Your task to perform on an android device: Clear the shopping cart on ebay. Add razer naga to the cart on ebay, then select checkout. Image 0: 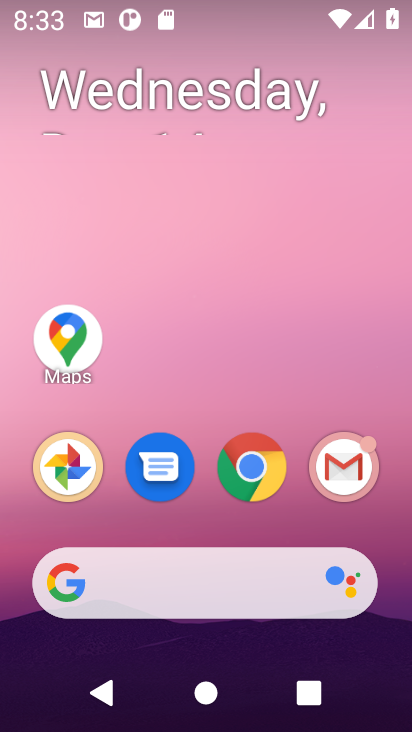
Step 0: click (237, 498)
Your task to perform on an android device: Clear the shopping cart on ebay. Add razer naga to the cart on ebay, then select checkout. Image 1: 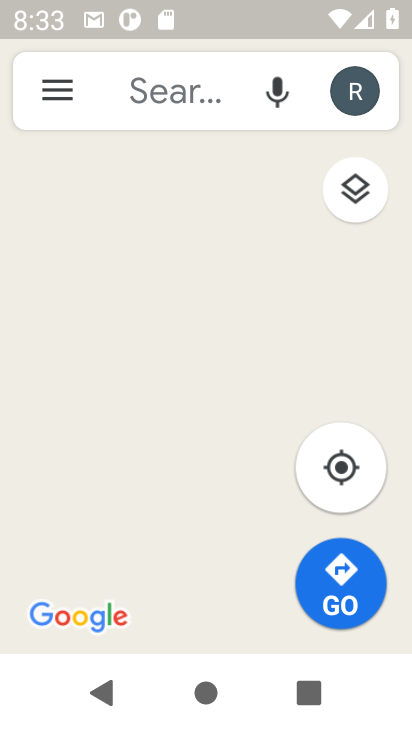
Step 1: press home button
Your task to perform on an android device: Clear the shopping cart on ebay. Add razer naga to the cart on ebay, then select checkout. Image 2: 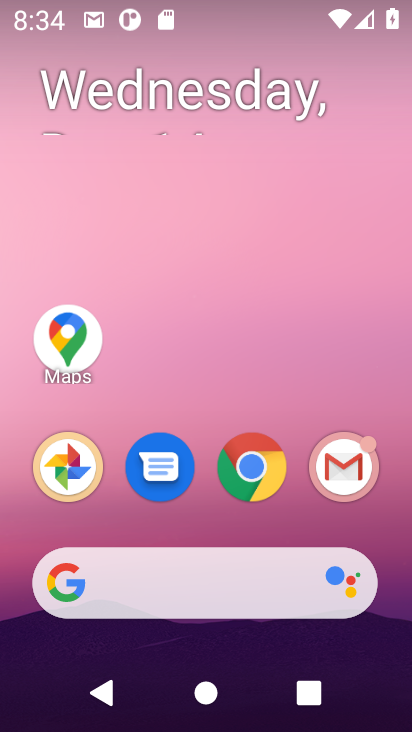
Step 2: click (256, 488)
Your task to perform on an android device: Clear the shopping cart on ebay. Add razer naga to the cart on ebay, then select checkout. Image 3: 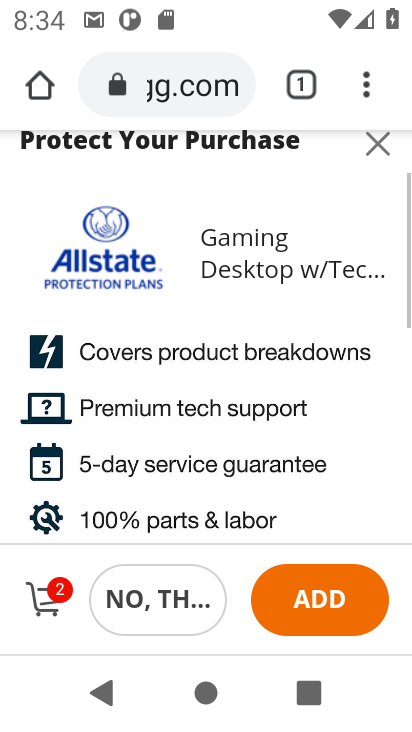
Step 3: click (278, 570)
Your task to perform on an android device: Clear the shopping cart on ebay. Add razer naga to the cart on ebay, then select checkout. Image 4: 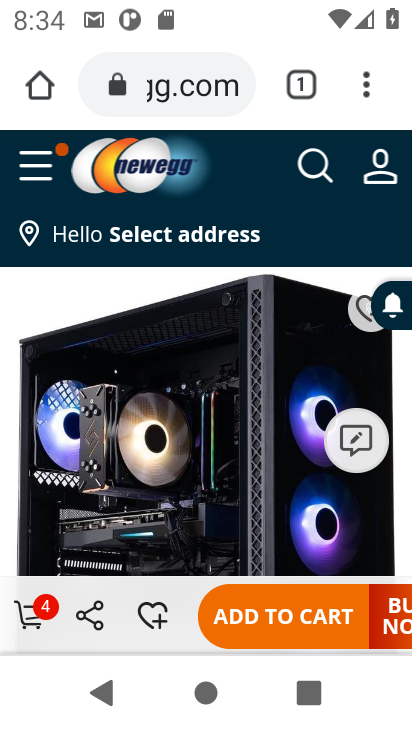
Step 4: click (175, 77)
Your task to perform on an android device: Clear the shopping cart on ebay. Add razer naga to the cart on ebay, then select checkout. Image 5: 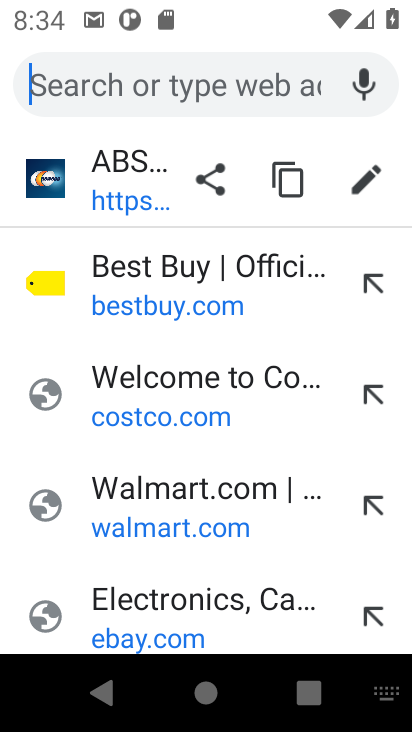
Step 5: type "ebay"
Your task to perform on an android device: Clear the shopping cart on ebay. Add razer naga to the cart on ebay, then select checkout. Image 6: 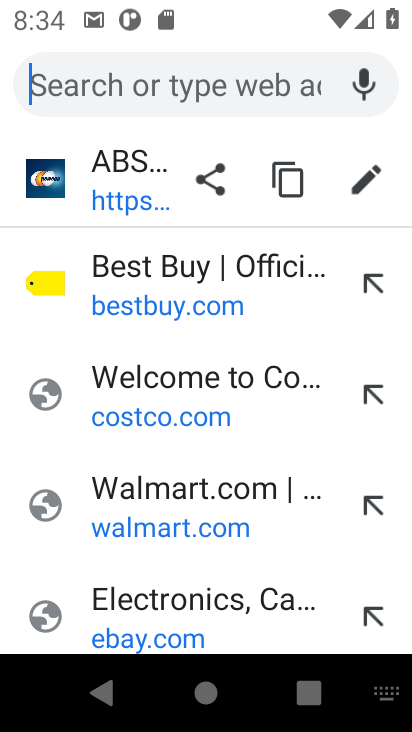
Step 6: click (198, 611)
Your task to perform on an android device: Clear the shopping cart on ebay. Add razer naga to the cart on ebay, then select checkout. Image 7: 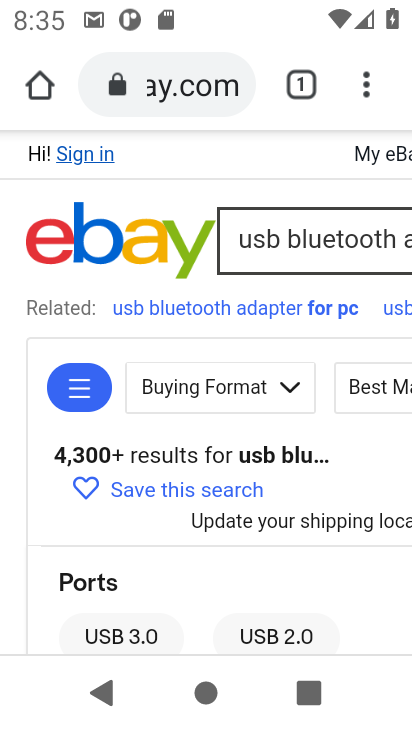
Step 7: click (293, 242)
Your task to perform on an android device: Clear the shopping cart on ebay. Add razer naga to the cart on ebay, then select checkout. Image 8: 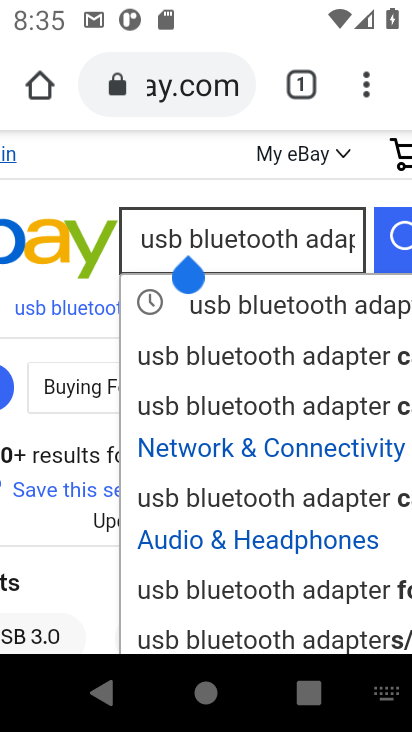
Step 8: click (293, 242)
Your task to perform on an android device: Clear the shopping cart on ebay. Add razer naga to the cart on ebay, then select checkout. Image 9: 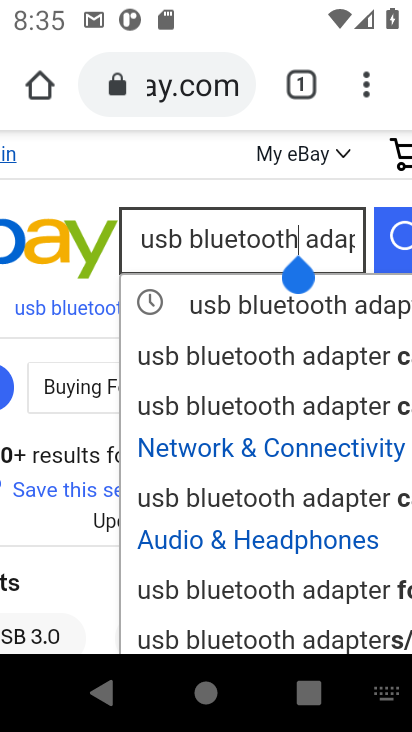
Step 9: click (341, 257)
Your task to perform on an android device: Clear the shopping cart on ebay. Add razer naga to the cart on ebay, then select checkout. Image 10: 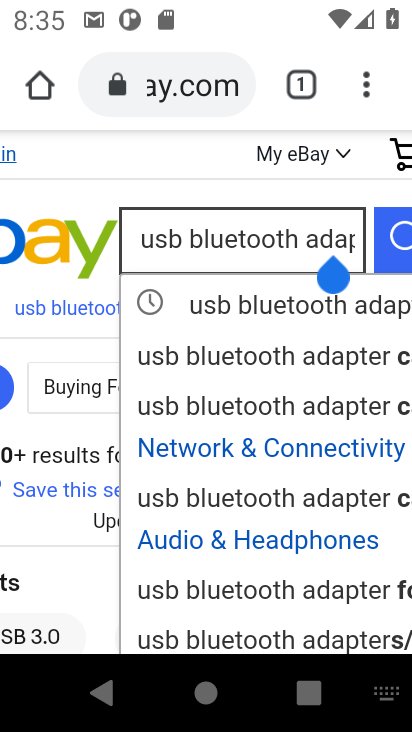
Step 10: type "razer naga]"
Your task to perform on an android device: Clear the shopping cart on ebay. Add razer naga to the cart on ebay, then select checkout. Image 11: 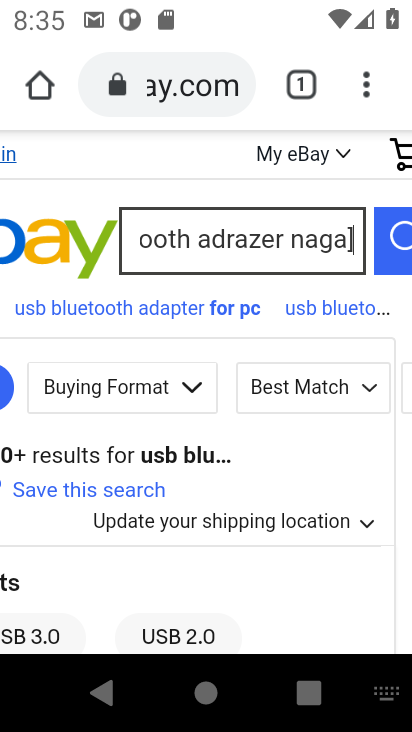
Step 11: click (386, 249)
Your task to perform on an android device: Clear the shopping cart on ebay. Add razer naga to the cart on ebay, then select checkout. Image 12: 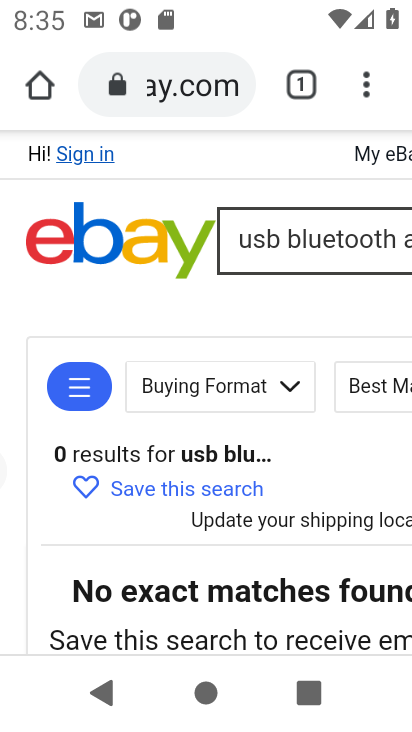
Step 12: task complete